Your task to perform on an android device: Open Google Maps Image 0: 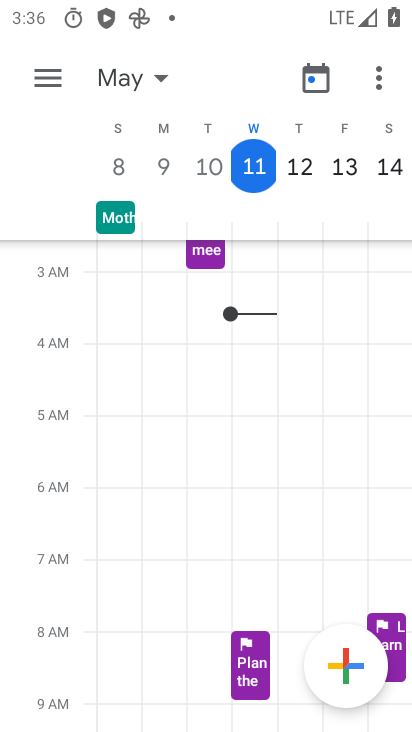
Step 0: press home button
Your task to perform on an android device: Open Google Maps Image 1: 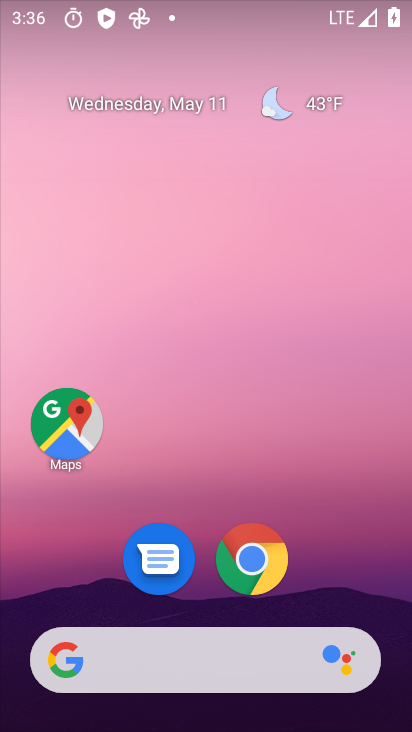
Step 1: click (72, 412)
Your task to perform on an android device: Open Google Maps Image 2: 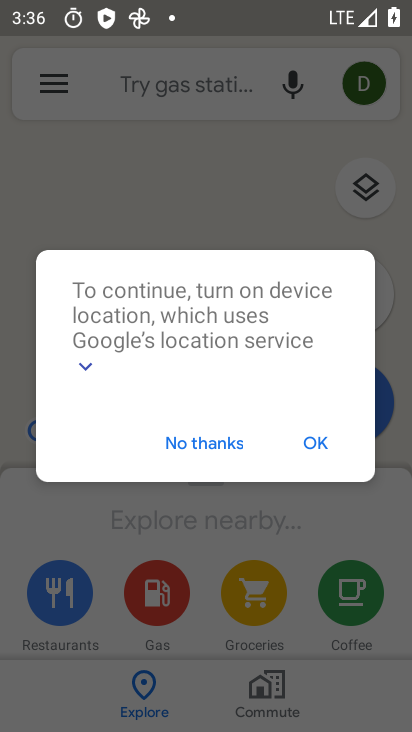
Step 2: task complete